Your task to perform on an android device: Go to Google Image 0: 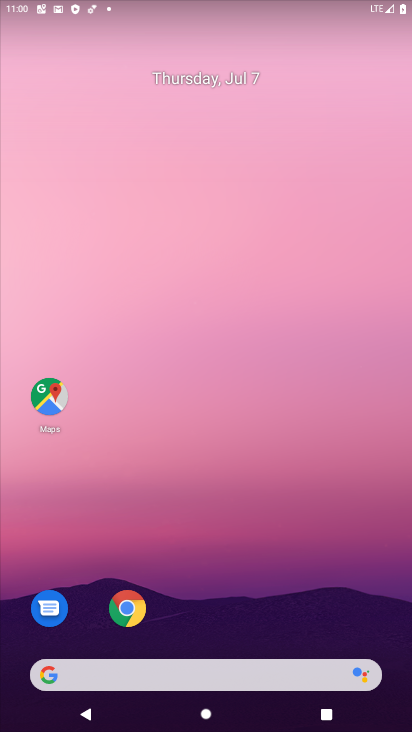
Step 0: drag from (337, 668) to (362, 1)
Your task to perform on an android device: Go to Google Image 1: 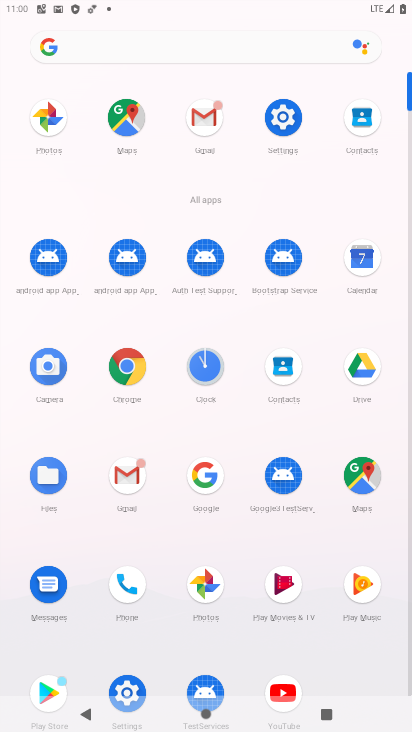
Step 1: click (209, 487)
Your task to perform on an android device: Go to Google Image 2: 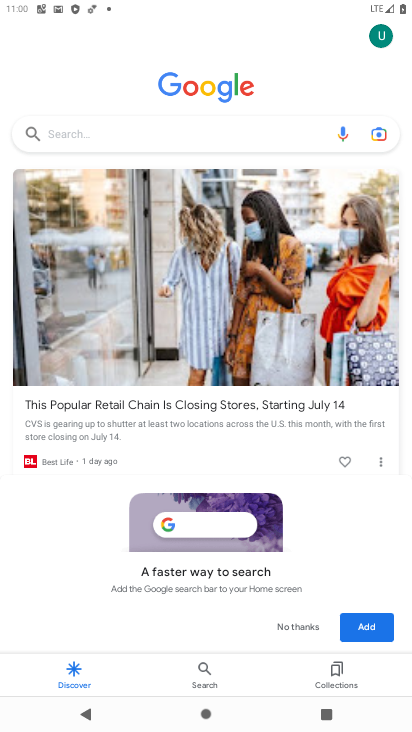
Step 2: task complete